Your task to perform on an android device: What's on my calendar today? Image 0: 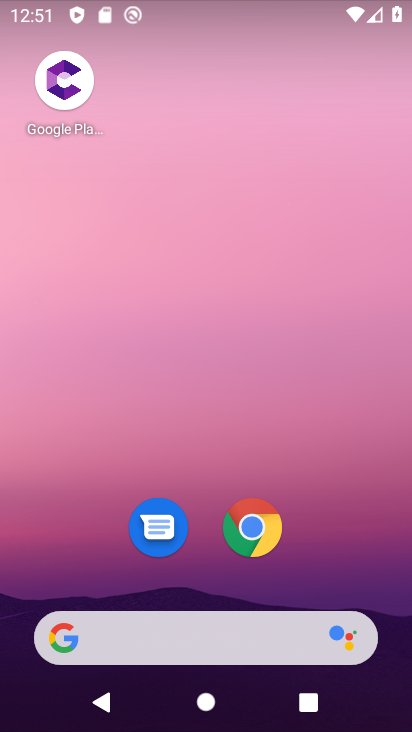
Step 0: drag from (360, 545) to (343, 70)
Your task to perform on an android device: What's on my calendar today? Image 1: 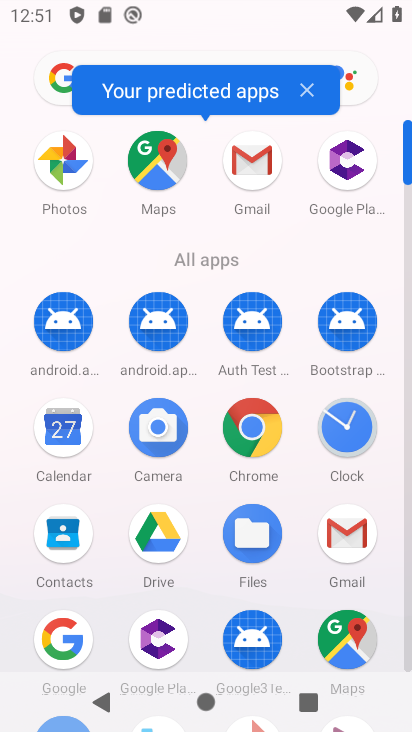
Step 1: click (62, 424)
Your task to perform on an android device: What's on my calendar today? Image 2: 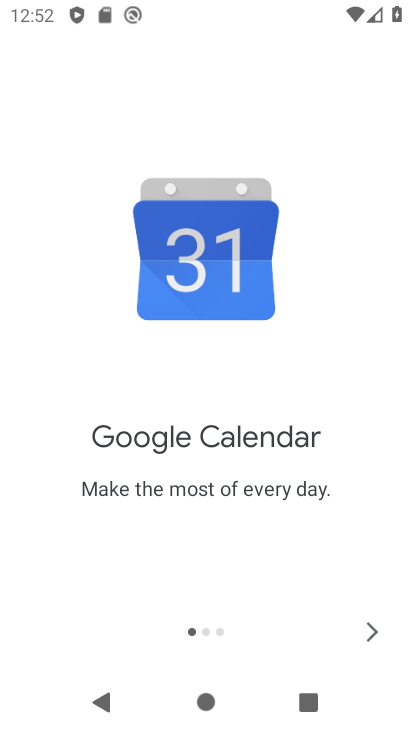
Step 2: click (382, 623)
Your task to perform on an android device: What's on my calendar today? Image 3: 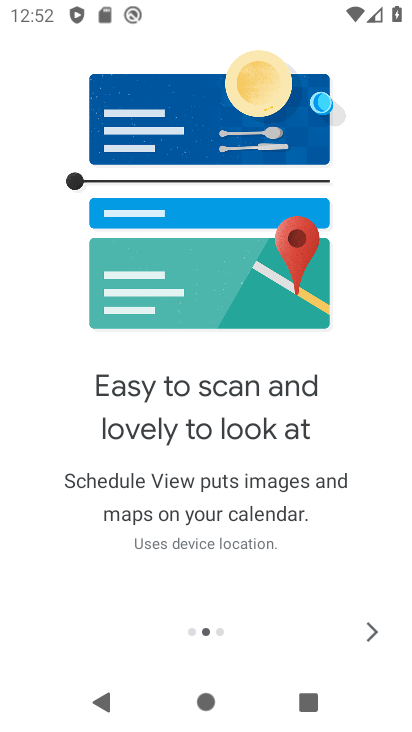
Step 3: click (382, 623)
Your task to perform on an android device: What's on my calendar today? Image 4: 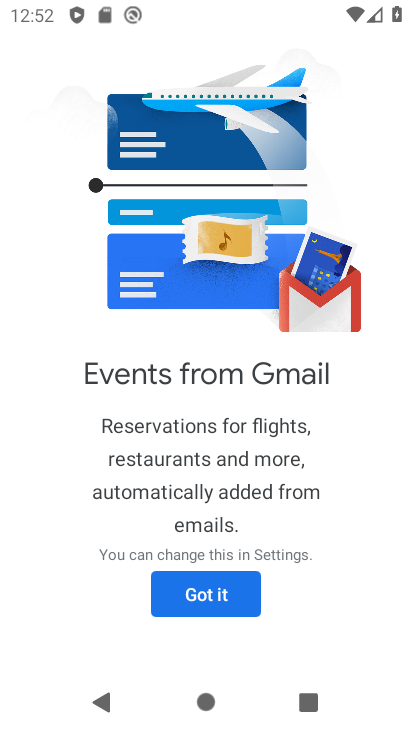
Step 4: click (223, 591)
Your task to perform on an android device: What's on my calendar today? Image 5: 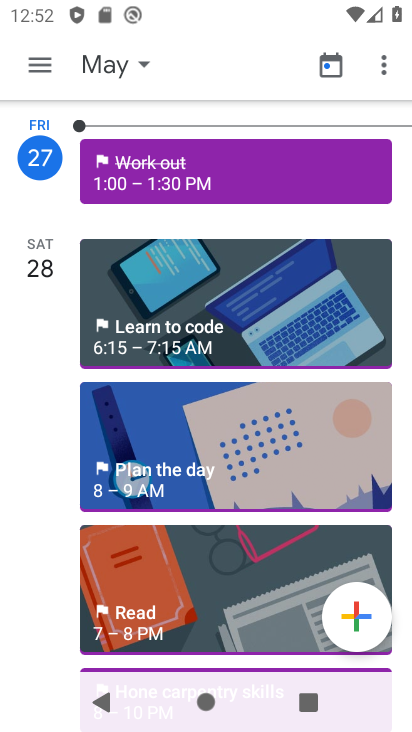
Step 5: click (52, 68)
Your task to perform on an android device: What's on my calendar today? Image 6: 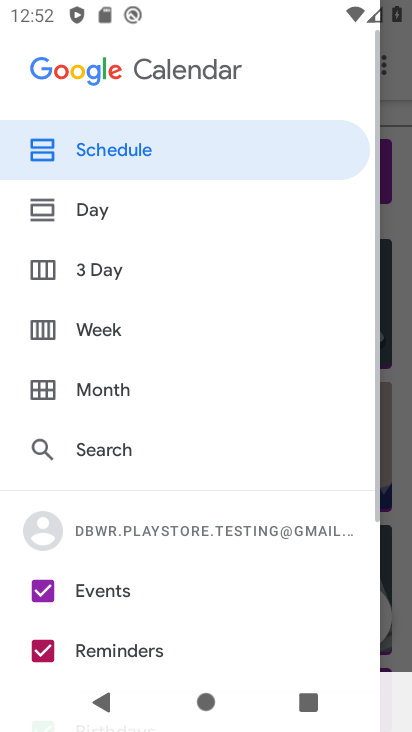
Step 6: click (74, 205)
Your task to perform on an android device: What's on my calendar today? Image 7: 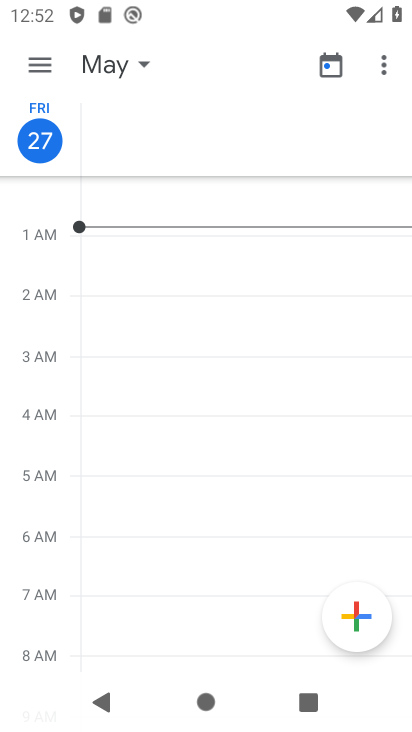
Step 7: task complete